Your task to perform on an android device: turn notification dots on Image 0: 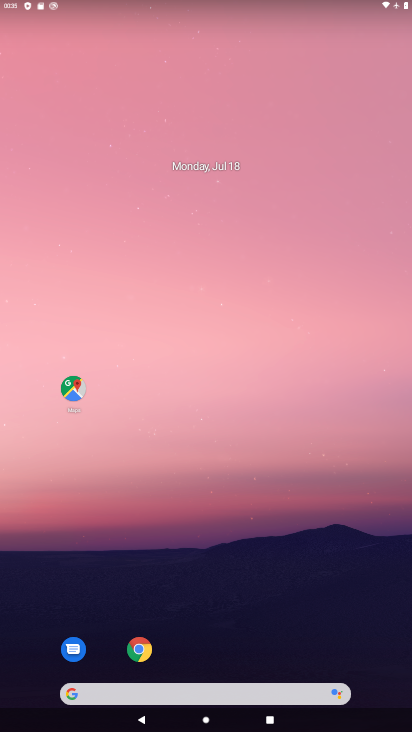
Step 0: drag from (181, 609) to (230, 59)
Your task to perform on an android device: turn notification dots on Image 1: 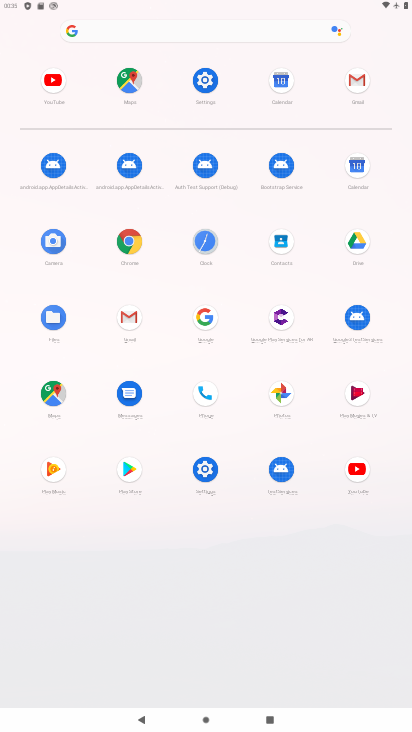
Step 1: click (201, 81)
Your task to perform on an android device: turn notification dots on Image 2: 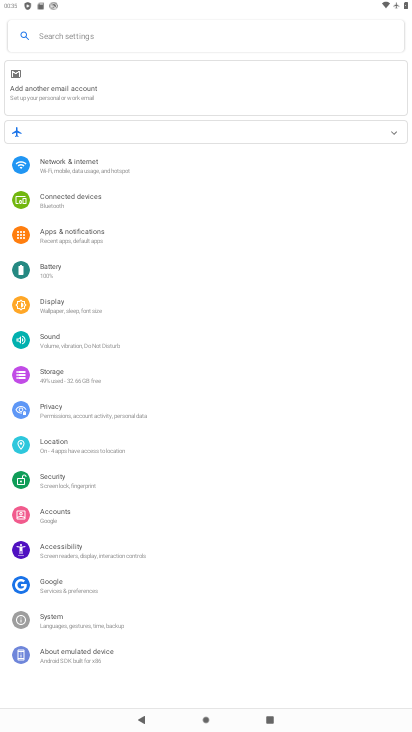
Step 2: click (70, 231)
Your task to perform on an android device: turn notification dots on Image 3: 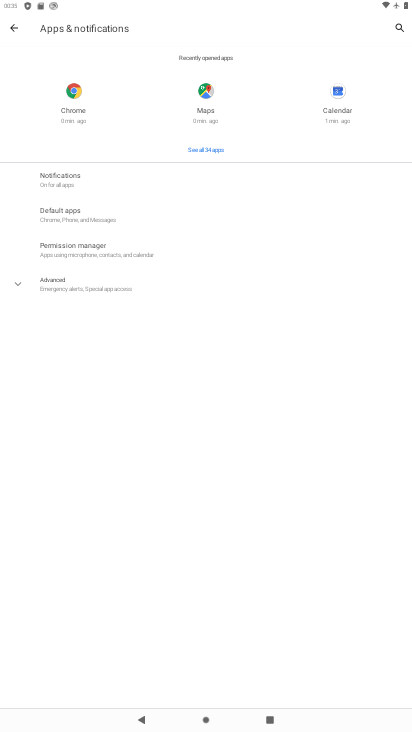
Step 3: click (62, 179)
Your task to perform on an android device: turn notification dots on Image 4: 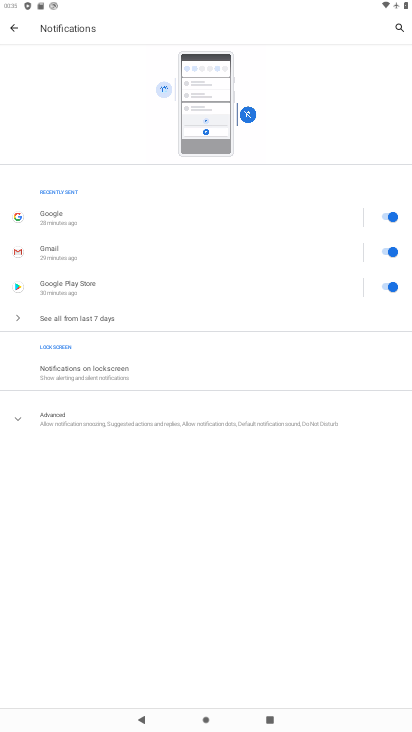
Step 4: click (44, 423)
Your task to perform on an android device: turn notification dots on Image 5: 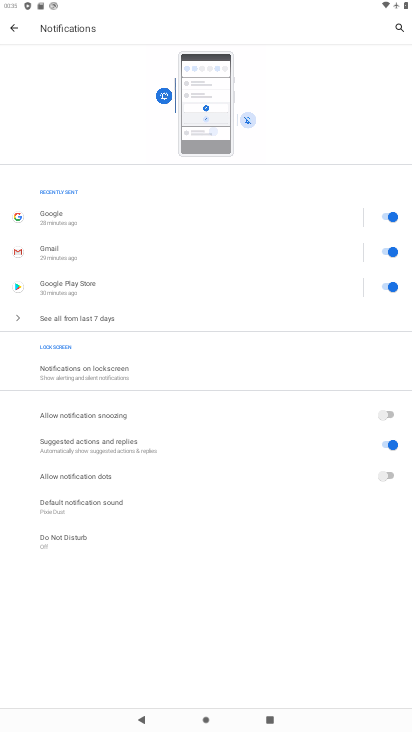
Step 5: click (389, 471)
Your task to perform on an android device: turn notification dots on Image 6: 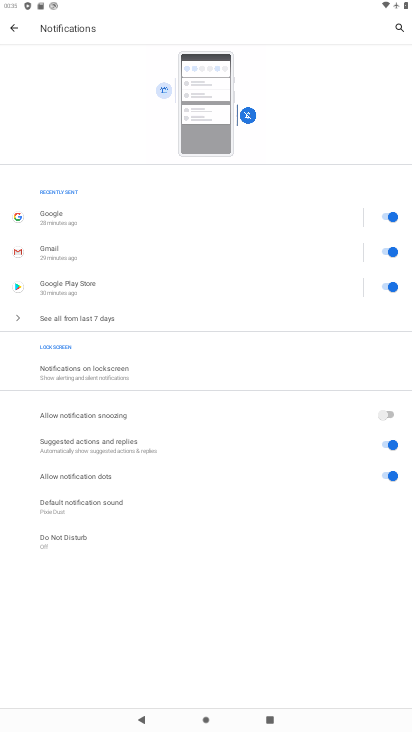
Step 6: task complete